Your task to perform on an android device: Open the calendar app, open the side menu, and click the "Day" option Image 0: 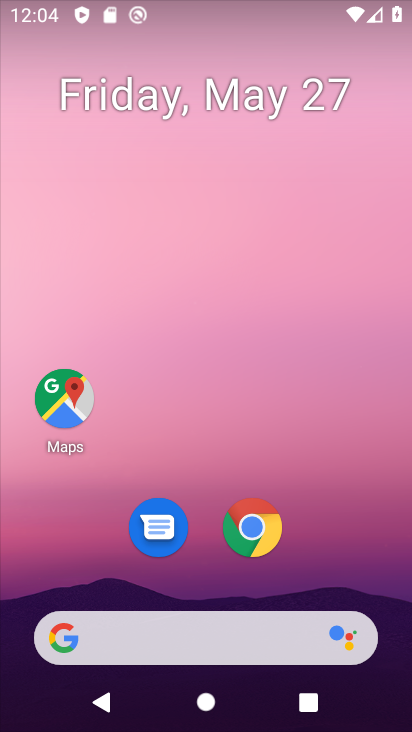
Step 0: drag from (240, 652) to (214, 126)
Your task to perform on an android device: Open the calendar app, open the side menu, and click the "Day" option Image 1: 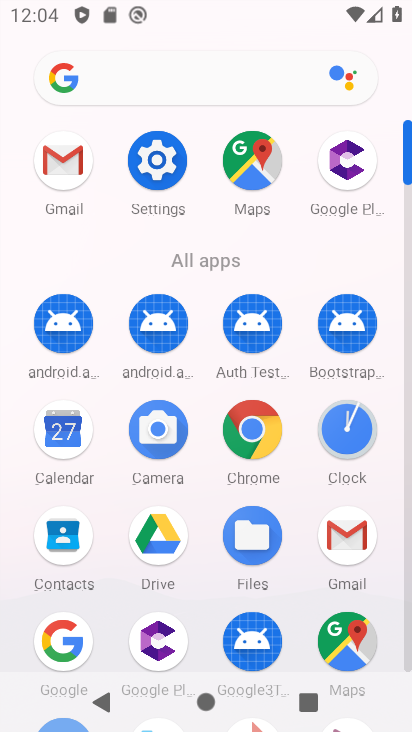
Step 1: click (66, 447)
Your task to perform on an android device: Open the calendar app, open the side menu, and click the "Day" option Image 2: 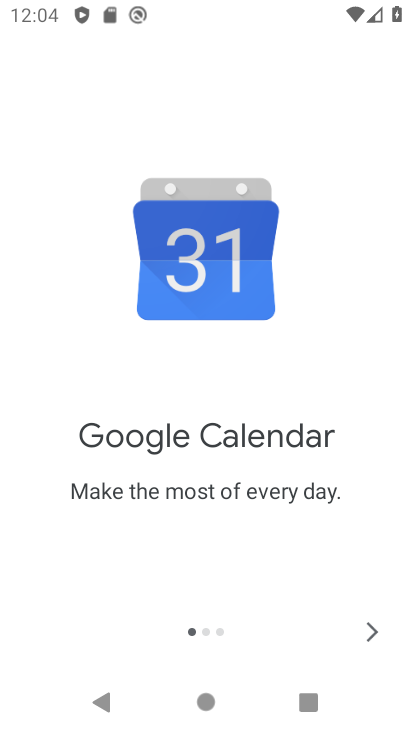
Step 2: click (366, 619)
Your task to perform on an android device: Open the calendar app, open the side menu, and click the "Day" option Image 3: 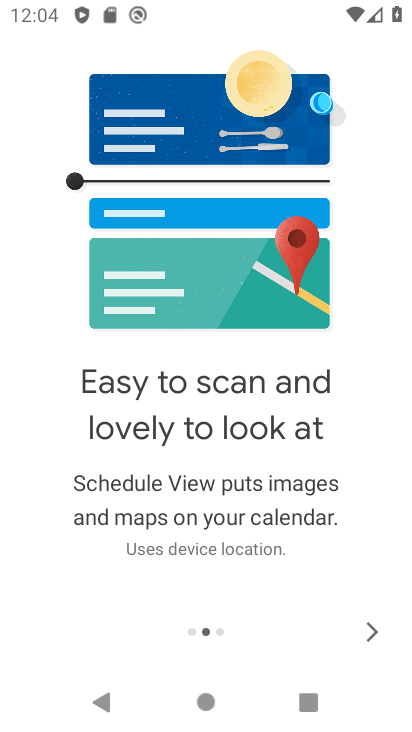
Step 3: click (364, 621)
Your task to perform on an android device: Open the calendar app, open the side menu, and click the "Day" option Image 4: 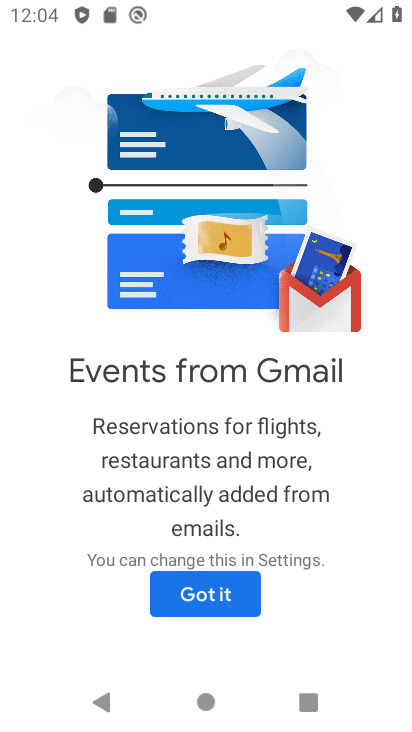
Step 4: click (364, 621)
Your task to perform on an android device: Open the calendar app, open the side menu, and click the "Day" option Image 5: 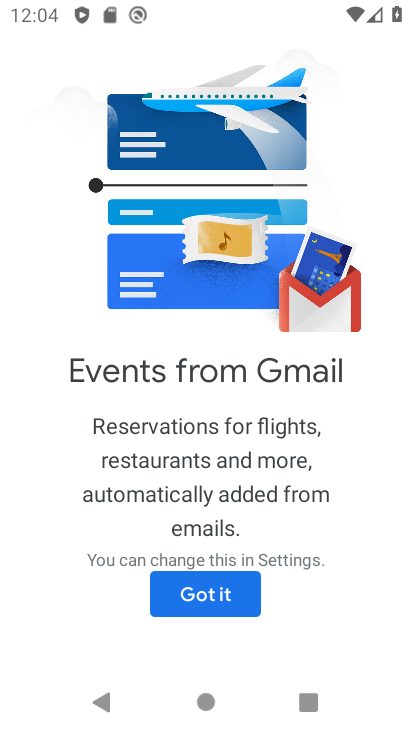
Step 5: click (202, 595)
Your task to perform on an android device: Open the calendar app, open the side menu, and click the "Day" option Image 6: 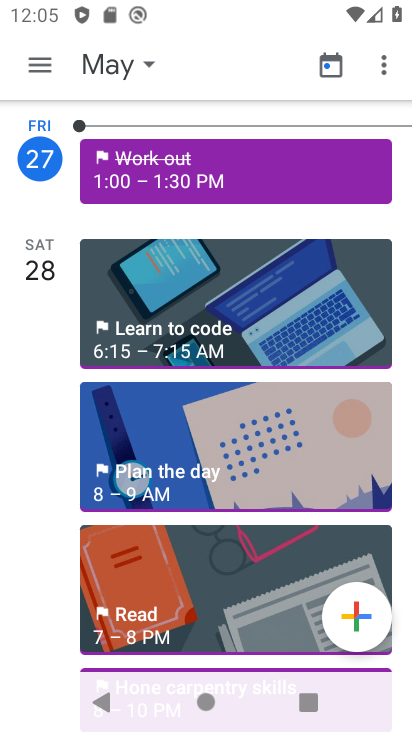
Step 6: click (37, 77)
Your task to perform on an android device: Open the calendar app, open the side menu, and click the "Day" option Image 7: 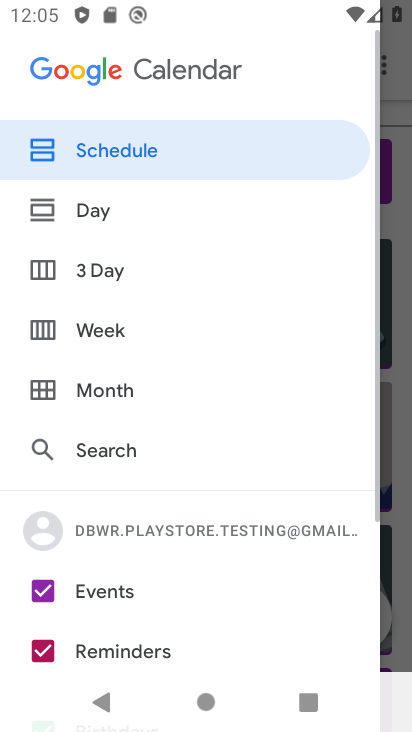
Step 7: click (79, 209)
Your task to perform on an android device: Open the calendar app, open the side menu, and click the "Day" option Image 8: 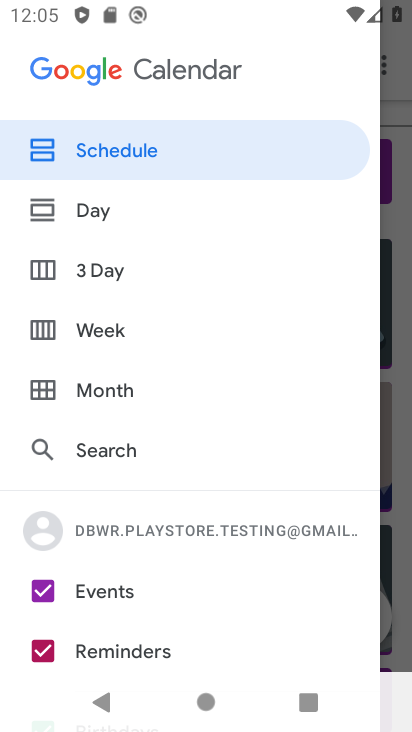
Step 8: click (124, 213)
Your task to perform on an android device: Open the calendar app, open the side menu, and click the "Day" option Image 9: 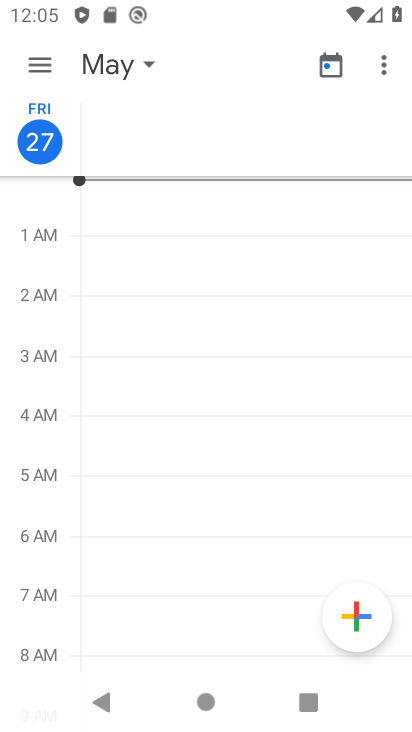
Step 9: task complete